Your task to perform on an android device: View the shopping cart on target. Image 0: 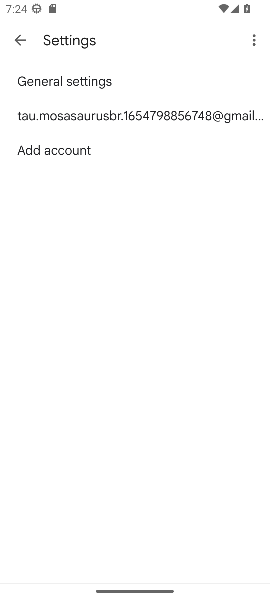
Step 0: press home button
Your task to perform on an android device: View the shopping cart on target. Image 1: 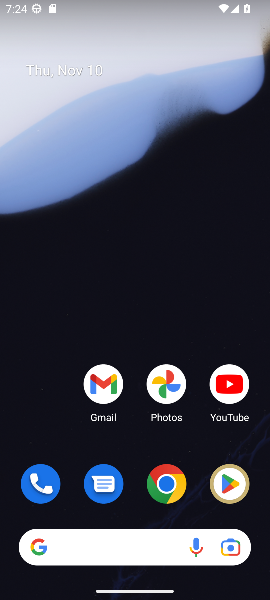
Step 1: click (171, 492)
Your task to perform on an android device: View the shopping cart on target. Image 2: 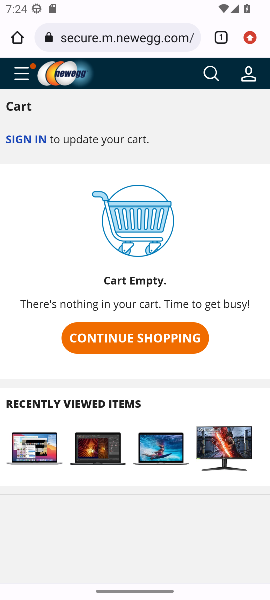
Step 2: click (123, 46)
Your task to perform on an android device: View the shopping cart on target. Image 3: 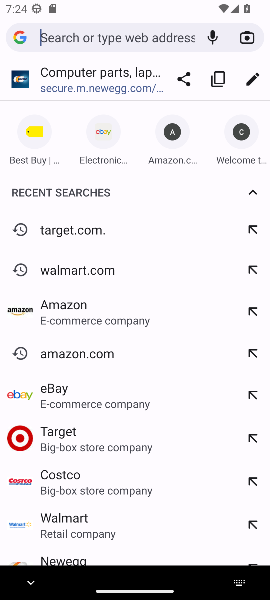
Step 3: click (59, 229)
Your task to perform on an android device: View the shopping cart on target. Image 4: 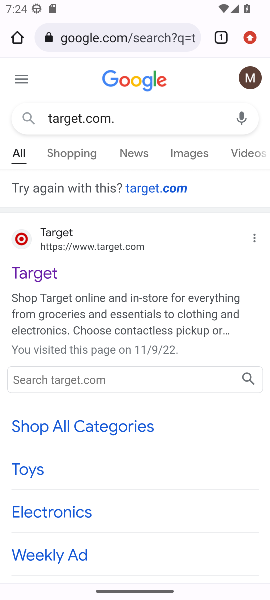
Step 4: click (48, 271)
Your task to perform on an android device: View the shopping cart on target. Image 5: 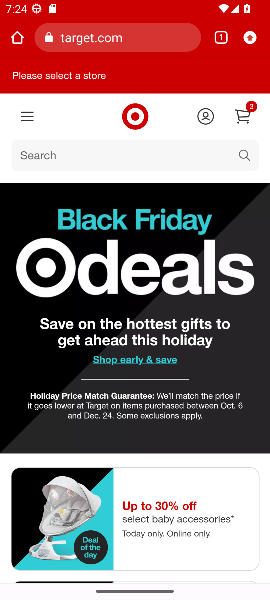
Step 5: click (247, 114)
Your task to perform on an android device: View the shopping cart on target. Image 6: 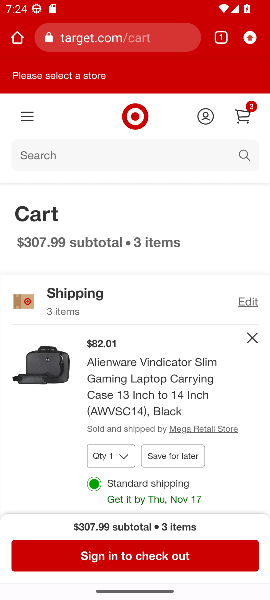
Step 6: task complete